Your task to perform on an android device: see tabs open on other devices in the chrome app Image 0: 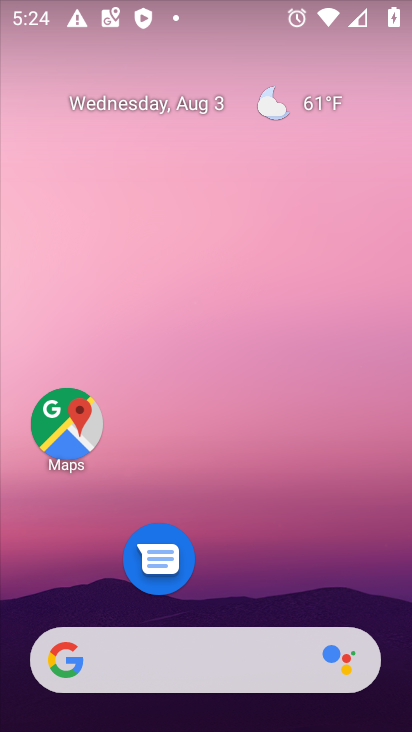
Step 0: drag from (239, 627) to (216, 100)
Your task to perform on an android device: see tabs open on other devices in the chrome app Image 1: 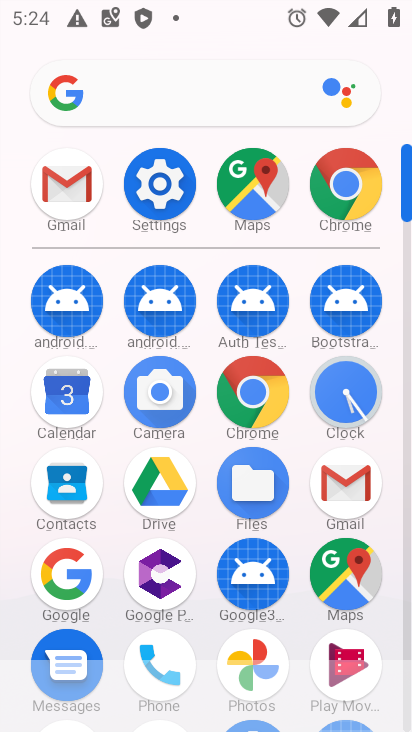
Step 1: click (345, 195)
Your task to perform on an android device: see tabs open on other devices in the chrome app Image 2: 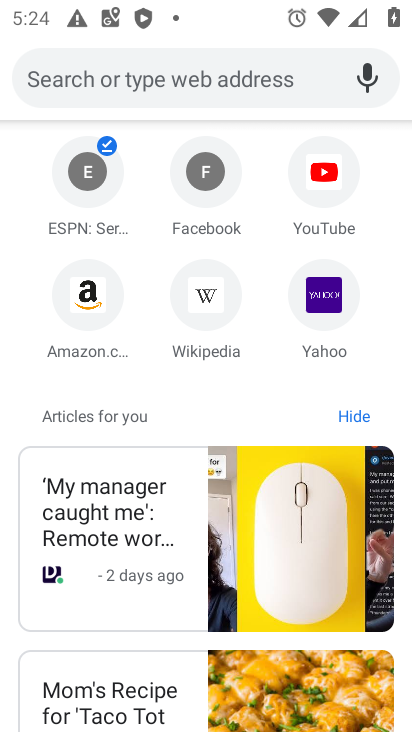
Step 2: drag from (203, 49) to (200, 444)
Your task to perform on an android device: see tabs open on other devices in the chrome app Image 3: 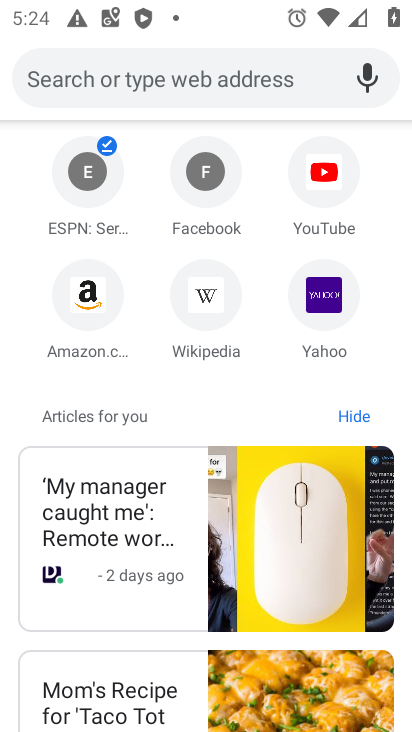
Step 3: click (103, 149)
Your task to perform on an android device: see tabs open on other devices in the chrome app Image 4: 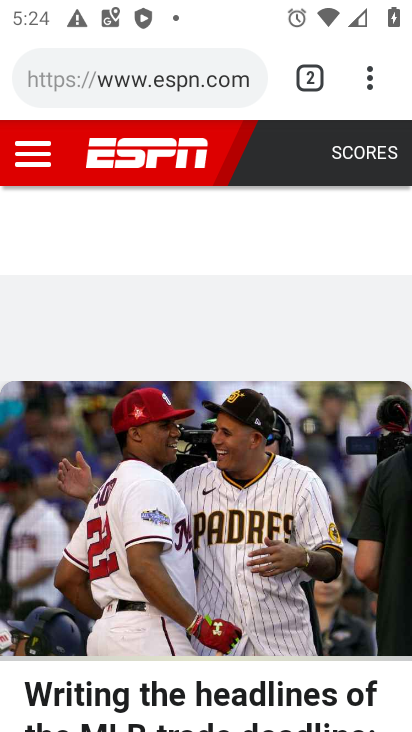
Step 4: click (371, 84)
Your task to perform on an android device: see tabs open on other devices in the chrome app Image 5: 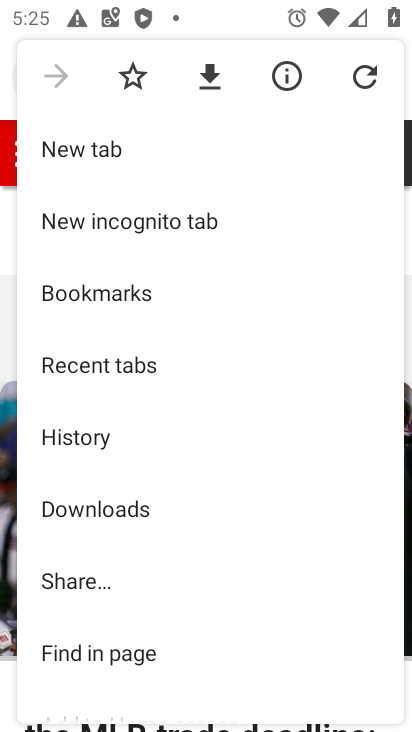
Step 5: click (51, 79)
Your task to perform on an android device: see tabs open on other devices in the chrome app Image 6: 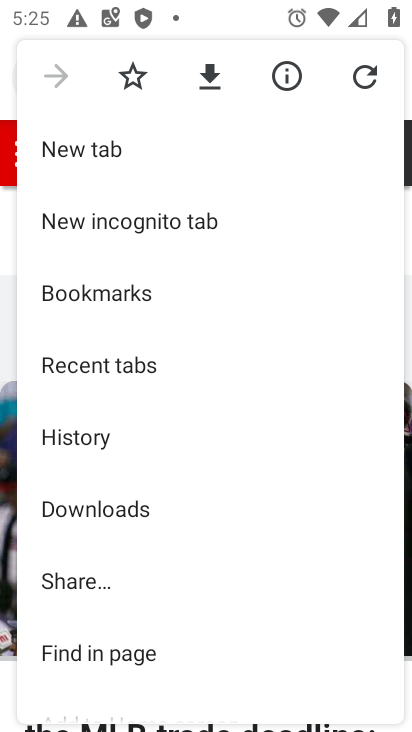
Step 6: click (6, 58)
Your task to perform on an android device: see tabs open on other devices in the chrome app Image 7: 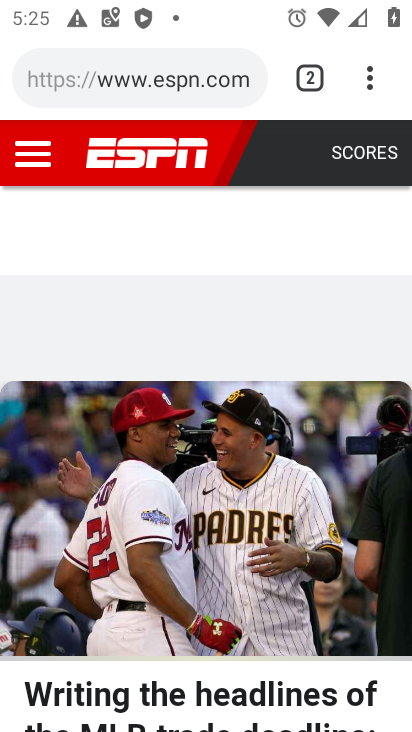
Step 7: click (312, 85)
Your task to perform on an android device: see tabs open on other devices in the chrome app Image 8: 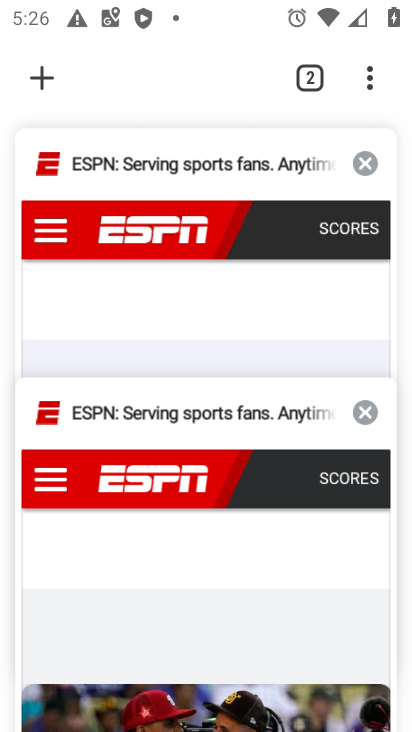
Step 8: task complete